Your task to perform on an android device: find snoozed emails in the gmail app Image 0: 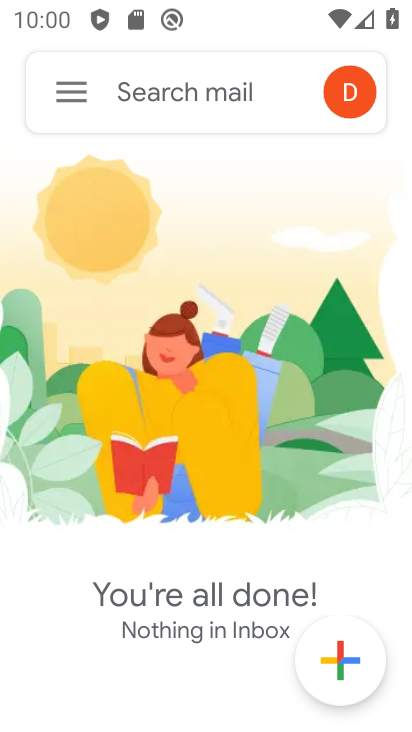
Step 0: press back button
Your task to perform on an android device: find snoozed emails in the gmail app Image 1: 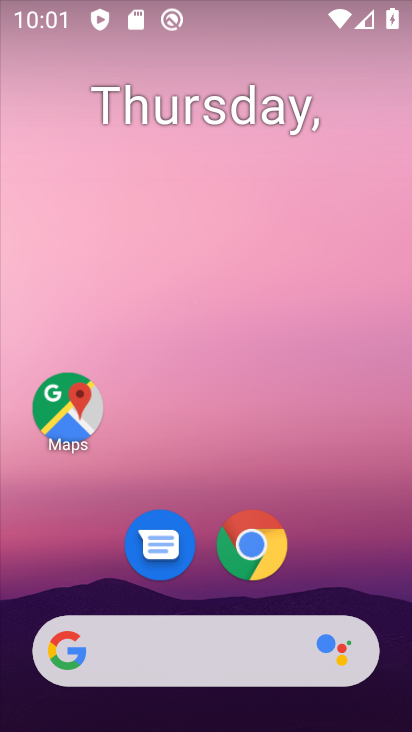
Step 1: drag from (344, 568) to (233, 115)
Your task to perform on an android device: find snoozed emails in the gmail app Image 2: 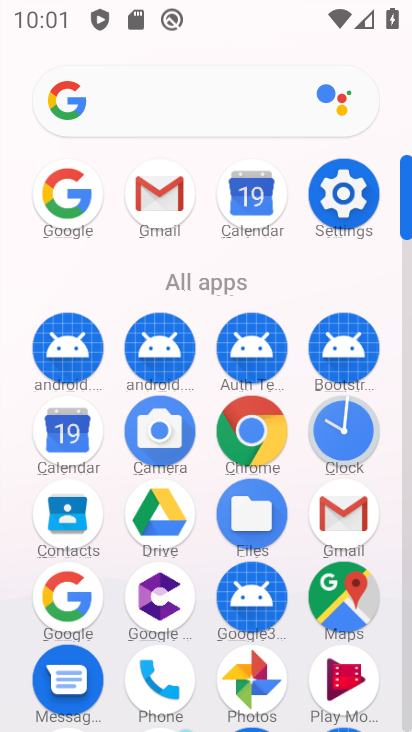
Step 2: click (162, 191)
Your task to perform on an android device: find snoozed emails in the gmail app Image 3: 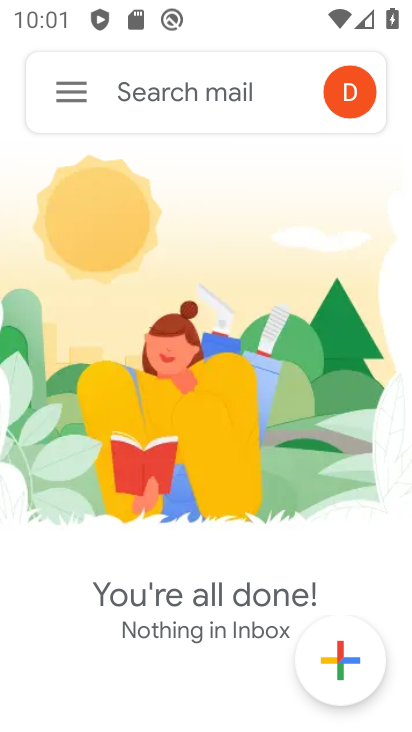
Step 3: click (72, 91)
Your task to perform on an android device: find snoozed emails in the gmail app Image 4: 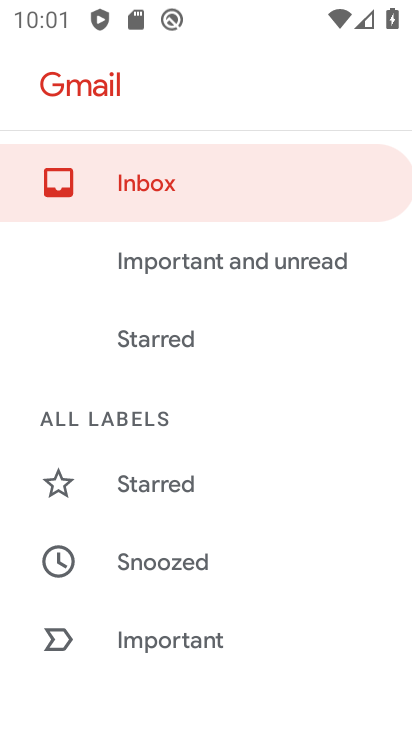
Step 4: drag from (178, 532) to (195, 411)
Your task to perform on an android device: find snoozed emails in the gmail app Image 5: 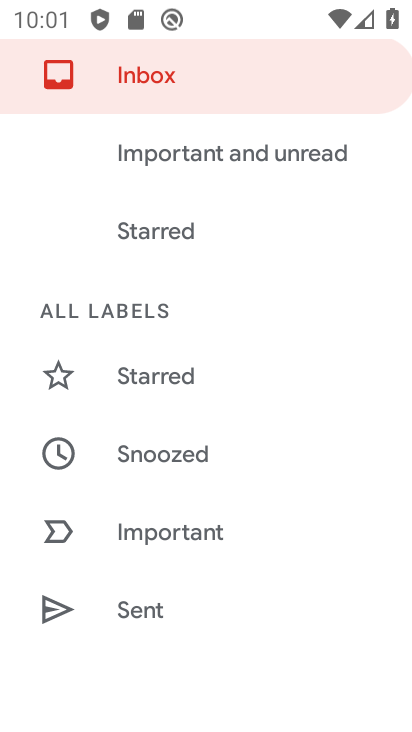
Step 5: click (172, 450)
Your task to perform on an android device: find snoozed emails in the gmail app Image 6: 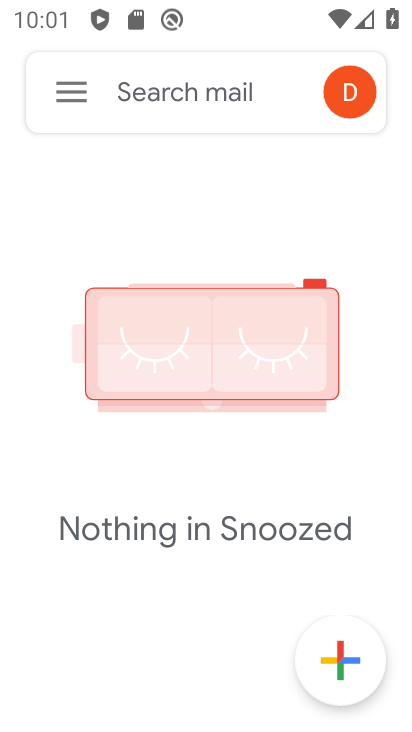
Step 6: task complete